Your task to perform on an android device: turn on data saver in the chrome app Image 0: 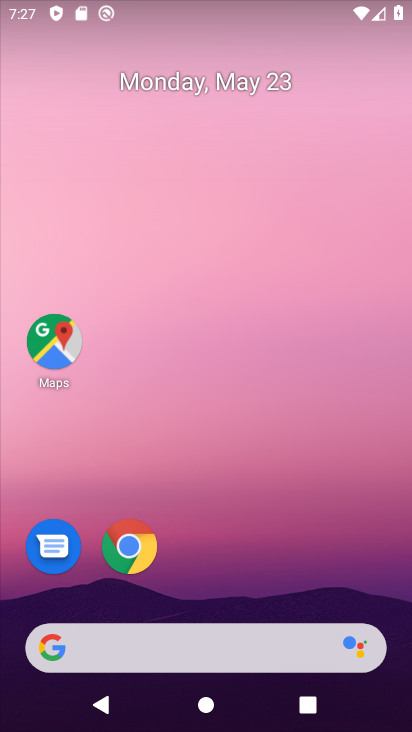
Step 0: drag from (390, 594) to (393, 302)
Your task to perform on an android device: turn on data saver in the chrome app Image 1: 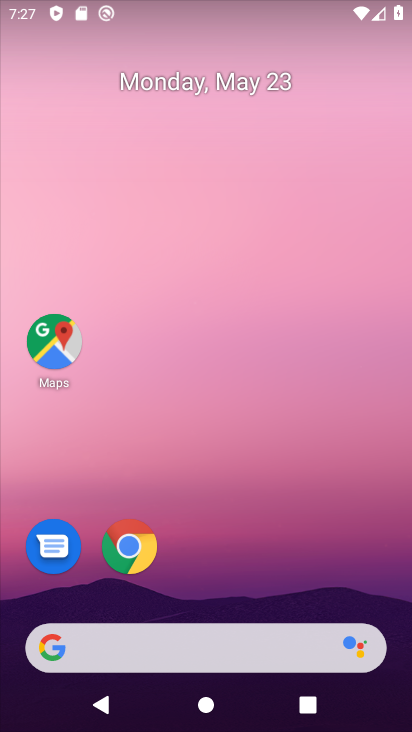
Step 1: drag from (365, 571) to (383, 183)
Your task to perform on an android device: turn on data saver in the chrome app Image 2: 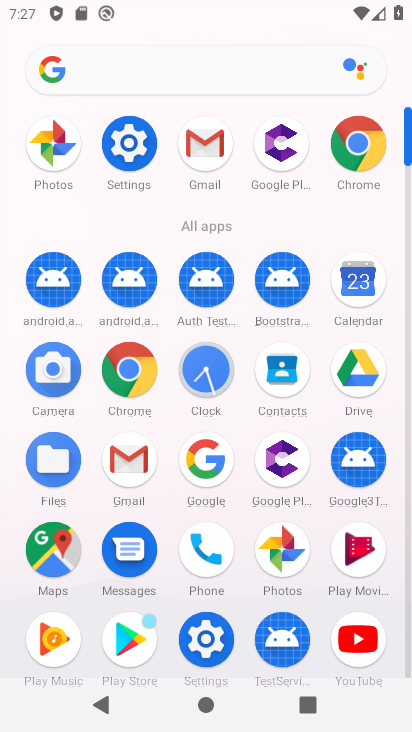
Step 2: click (134, 384)
Your task to perform on an android device: turn on data saver in the chrome app Image 3: 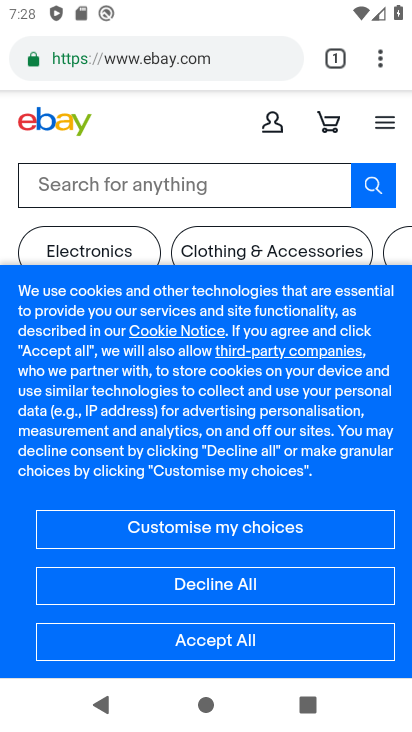
Step 3: click (383, 55)
Your task to perform on an android device: turn on data saver in the chrome app Image 4: 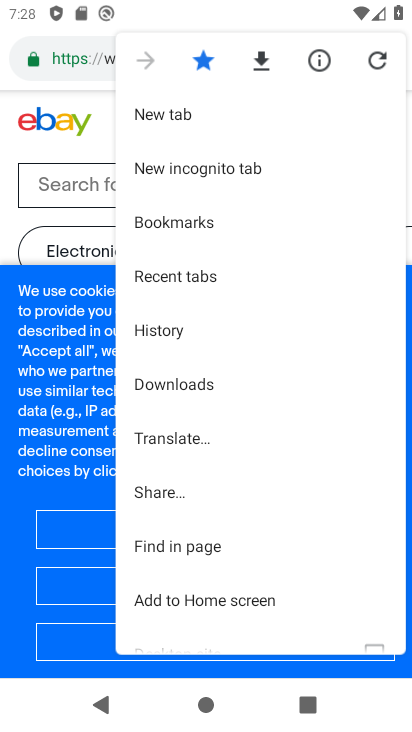
Step 4: drag from (300, 505) to (320, 414)
Your task to perform on an android device: turn on data saver in the chrome app Image 5: 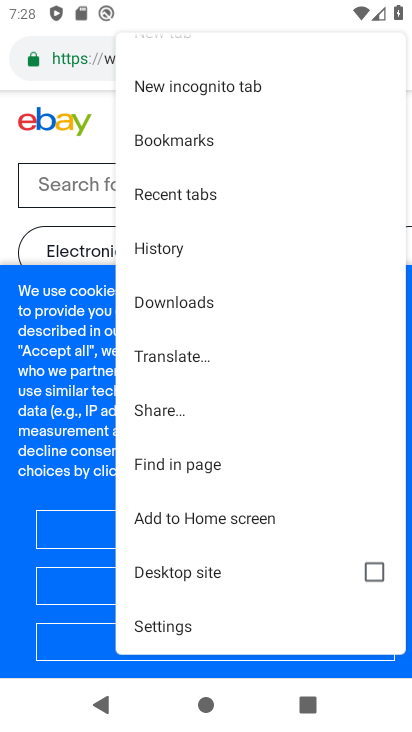
Step 5: drag from (319, 506) to (325, 403)
Your task to perform on an android device: turn on data saver in the chrome app Image 6: 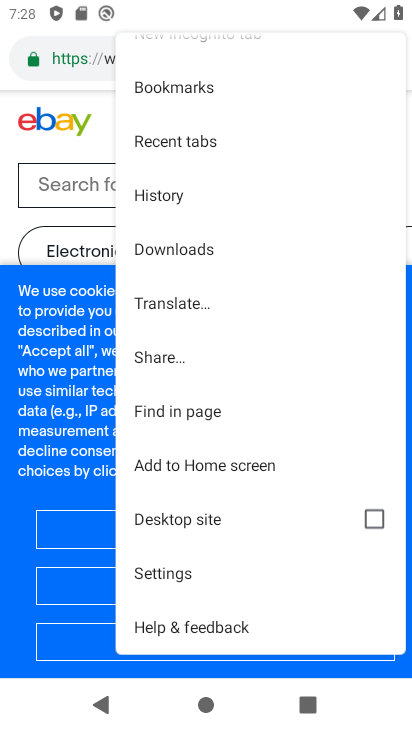
Step 6: click (191, 571)
Your task to perform on an android device: turn on data saver in the chrome app Image 7: 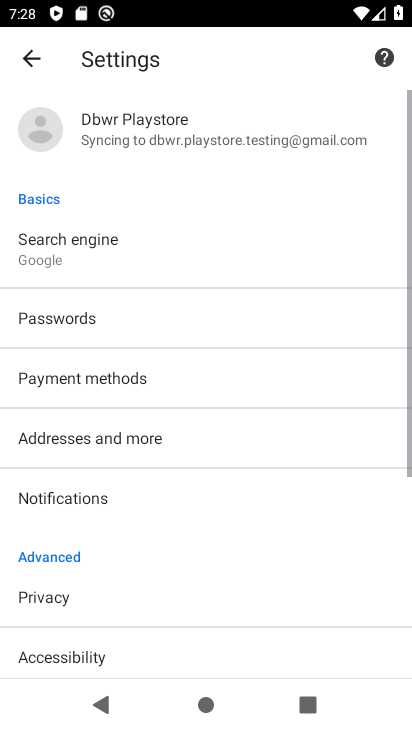
Step 7: drag from (319, 546) to (330, 456)
Your task to perform on an android device: turn on data saver in the chrome app Image 8: 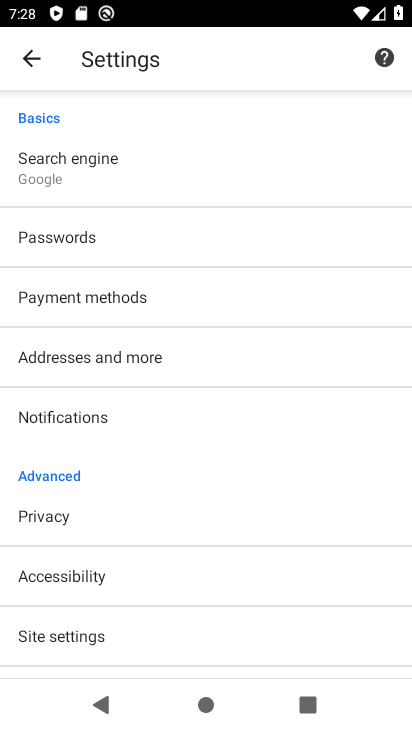
Step 8: drag from (341, 587) to (340, 476)
Your task to perform on an android device: turn on data saver in the chrome app Image 9: 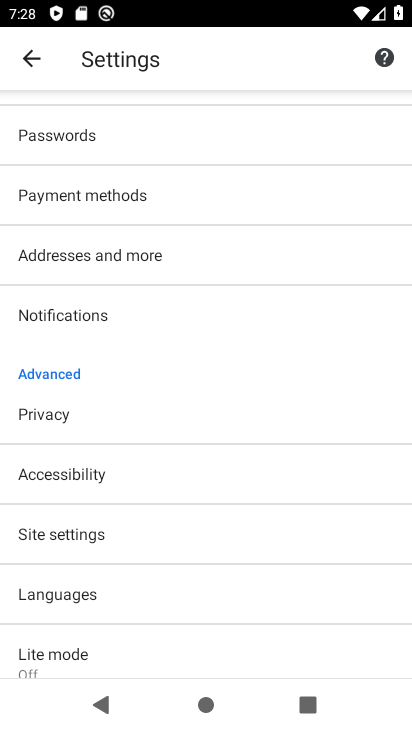
Step 9: drag from (333, 594) to (343, 500)
Your task to perform on an android device: turn on data saver in the chrome app Image 10: 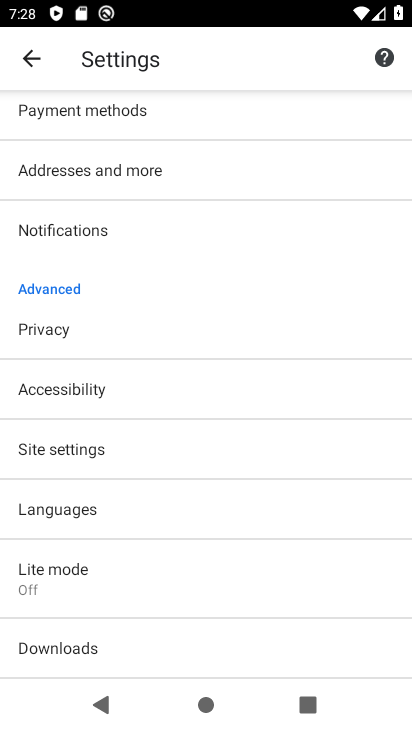
Step 10: drag from (336, 613) to (338, 501)
Your task to perform on an android device: turn on data saver in the chrome app Image 11: 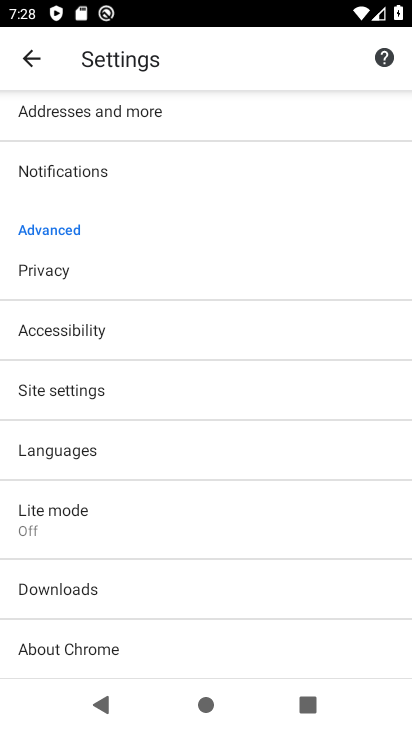
Step 11: drag from (342, 644) to (341, 498)
Your task to perform on an android device: turn on data saver in the chrome app Image 12: 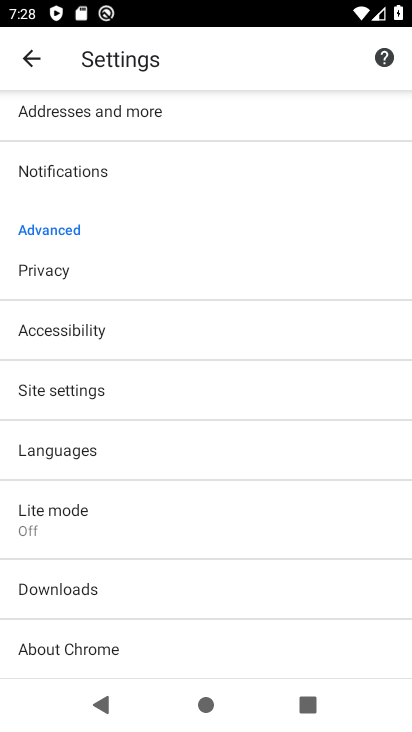
Step 12: click (303, 512)
Your task to perform on an android device: turn on data saver in the chrome app Image 13: 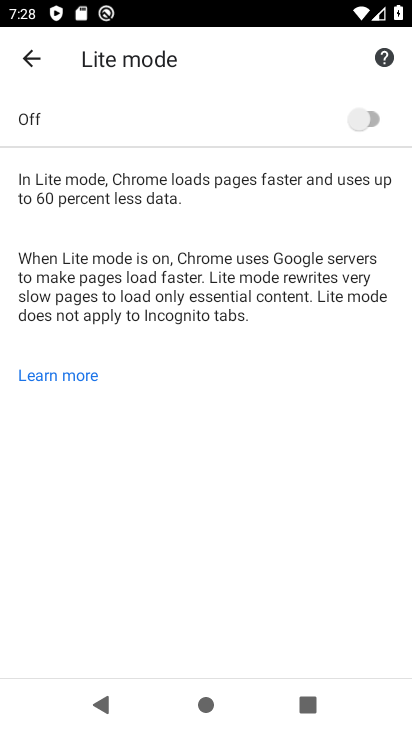
Step 13: click (370, 119)
Your task to perform on an android device: turn on data saver in the chrome app Image 14: 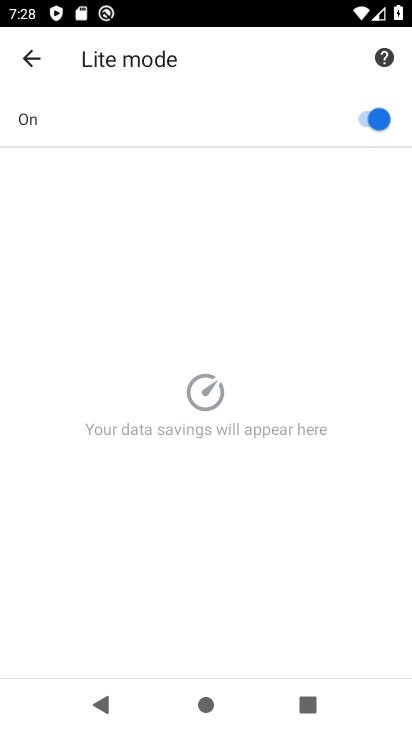
Step 14: task complete